Your task to perform on an android device: turn off airplane mode Image 0: 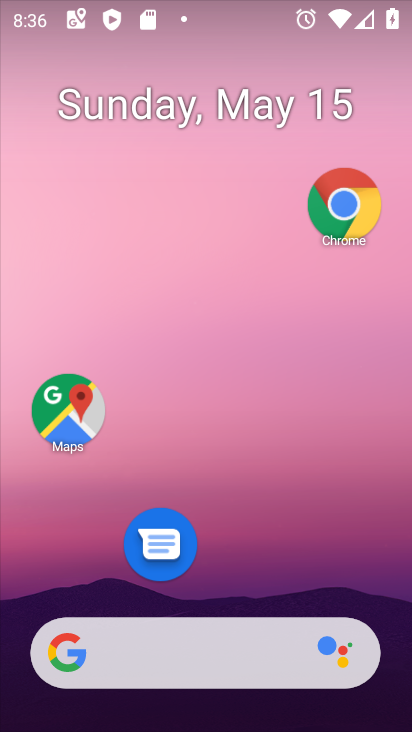
Step 0: drag from (257, 578) to (281, 20)
Your task to perform on an android device: turn off airplane mode Image 1: 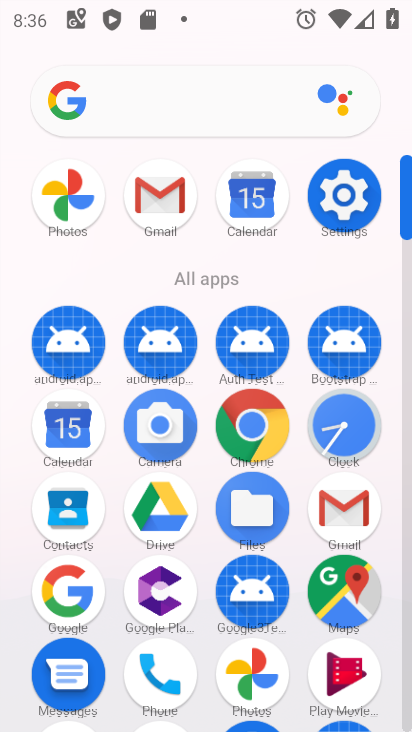
Step 1: click (344, 189)
Your task to perform on an android device: turn off airplane mode Image 2: 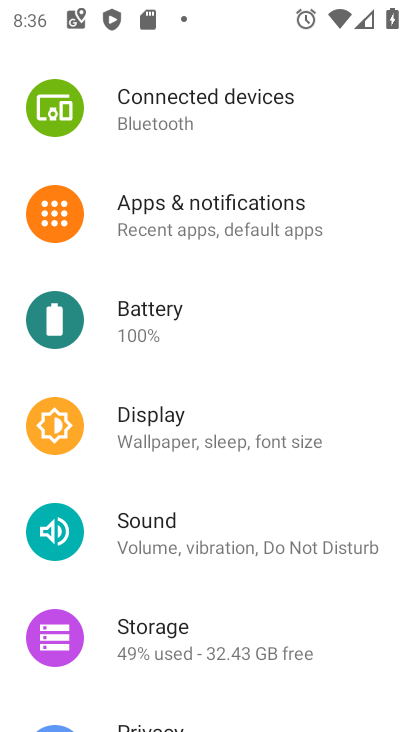
Step 2: drag from (233, 213) to (278, 471)
Your task to perform on an android device: turn off airplane mode Image 3: 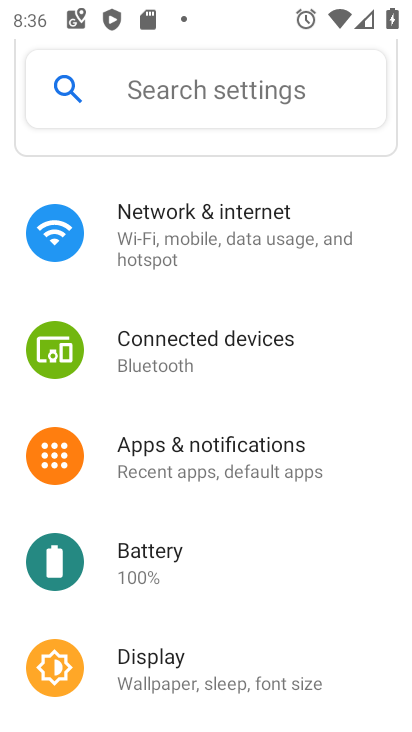
Step 3: click (254, 225)
Your task to perform on an android device: turn off airplane mode Image 4: 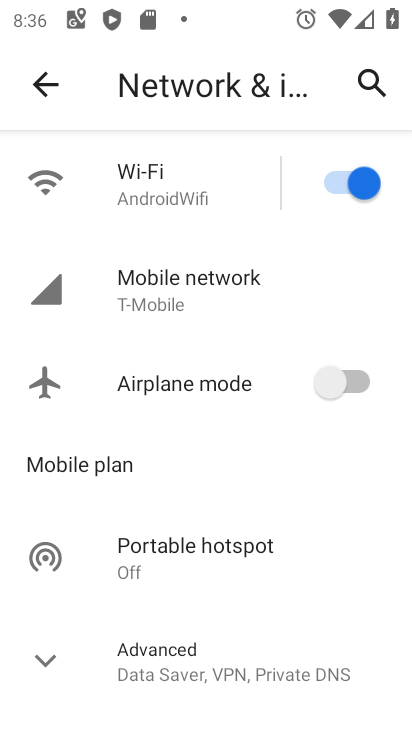
Step 4: task complete